Your task to perform on an android device: open app "Fetch Rewards" (install if not already installed) and enter user name: "Westwood@yahoo.com" and password: "qualifying" Image 0: 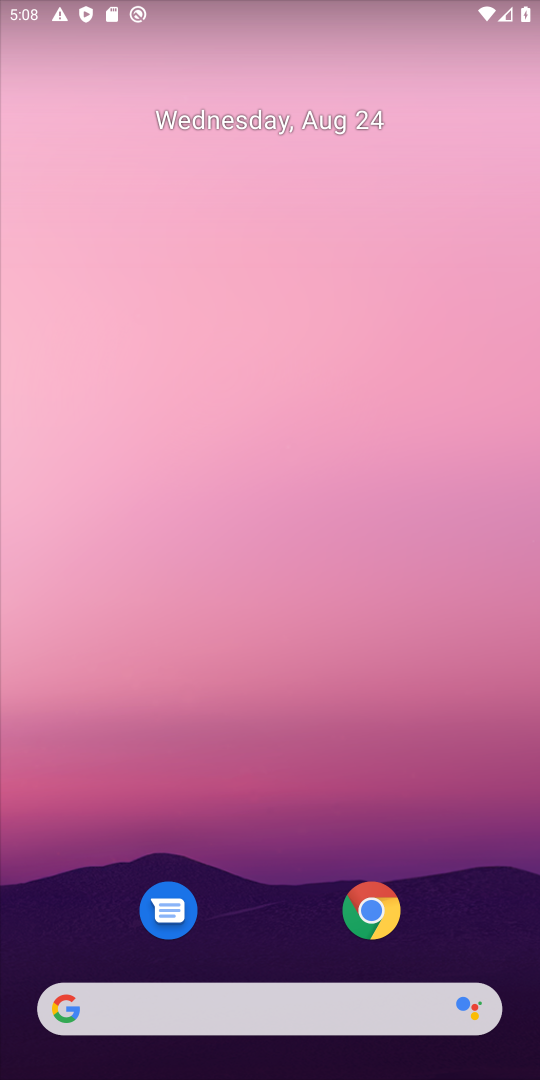
Step 0: drag from (201, 698) to (191, 160)
Your task to perform on an android device: open app "Fetch Rewards" (install if not already installed) and enter user name: "Westwood@yahoo.com" and password: "qualifying" Image 1: 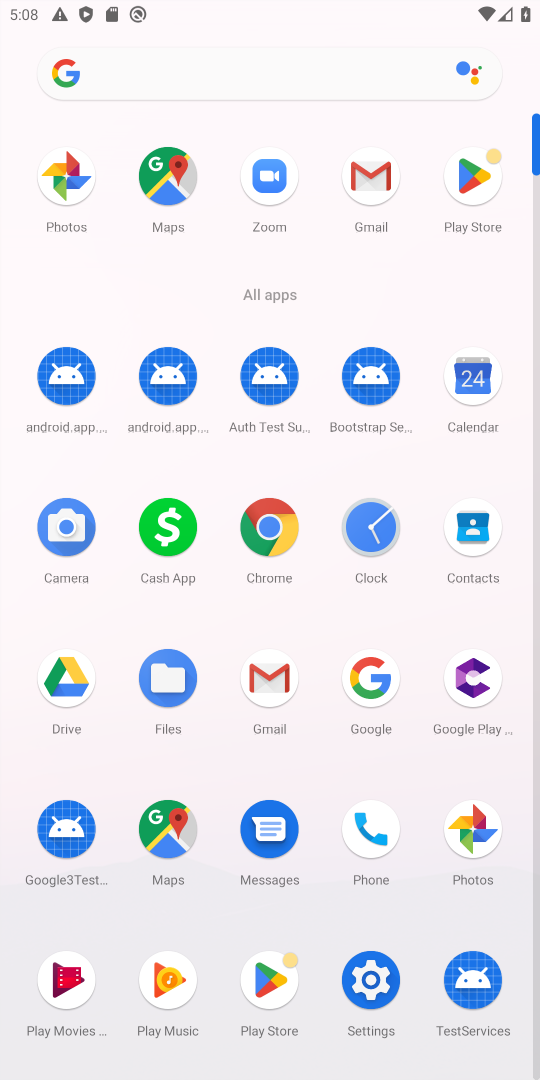
Step 1: click (450, 180)
Your task to perform on an android device: open app "Fetch Rewards" (install if not already installed) and enter user name: "Westwood@yahoo.com" and password: "qualifying" Image 2: 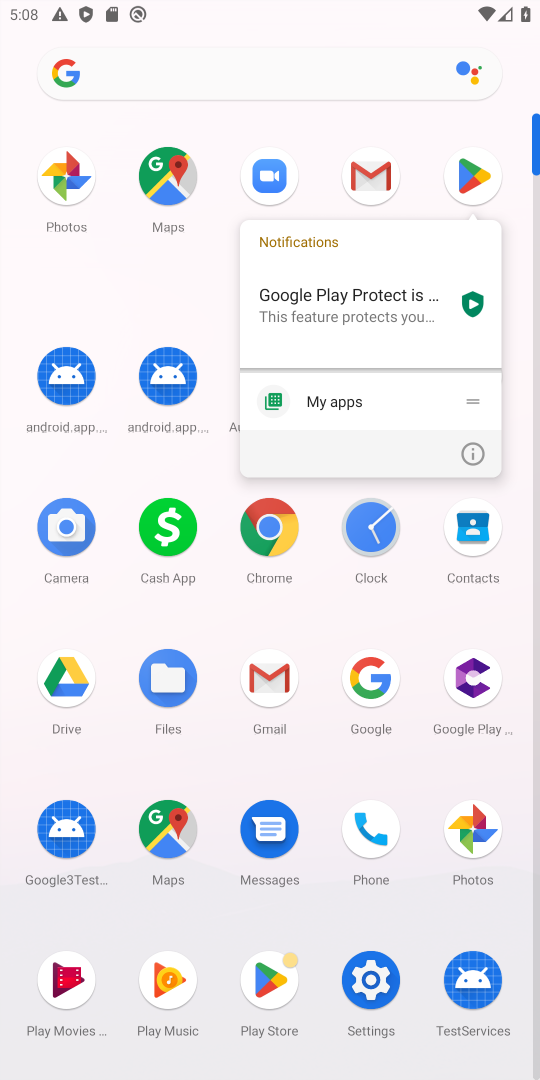
Step 2: click (480, 188)
Your task to perform on an android device: open app "Fetch Rewards" (install if not already installed) and enter user name: "Westwood@yahoo.com" and password: "qualifying" Image 3: 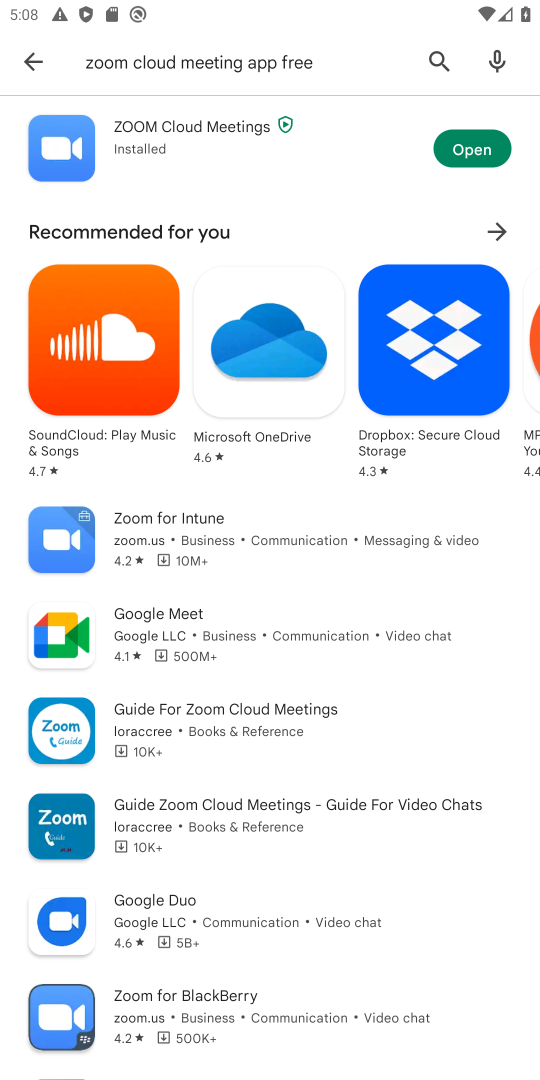
Step 3: click (434, 72)
Your task to perform on an android device: open app "Fetch Rewards" (install if not already installed) and enter user name: "Westwood@yahoo.com" and password: "qualifying" Image 4: 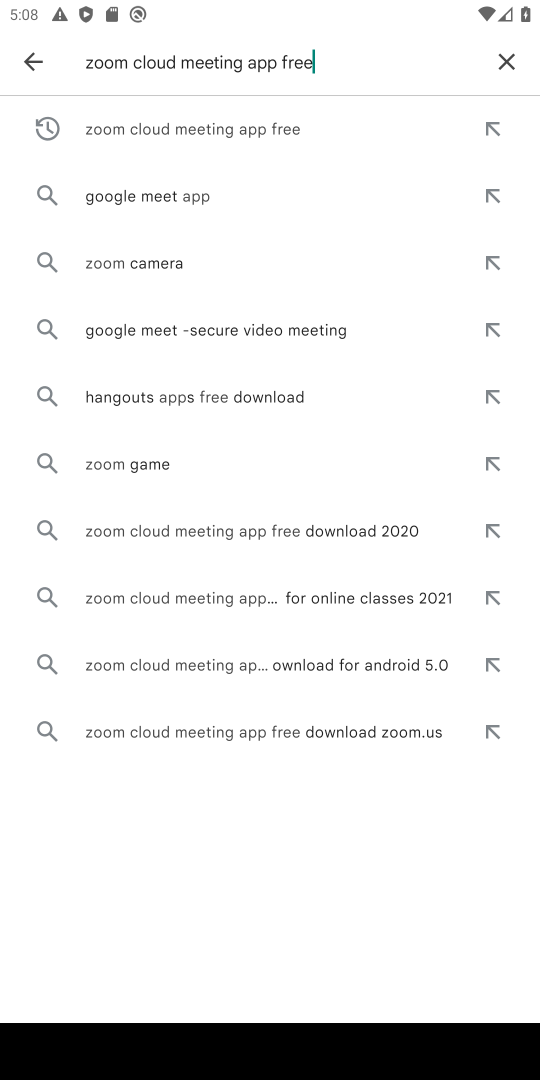
Step 4: click (492, 64)
Your task to perform on an android device: open app "Fetch Rewards" (install if not already installed) and enter user name: "Westwood@yahoo.com" and password: "qualifying" Image 5: 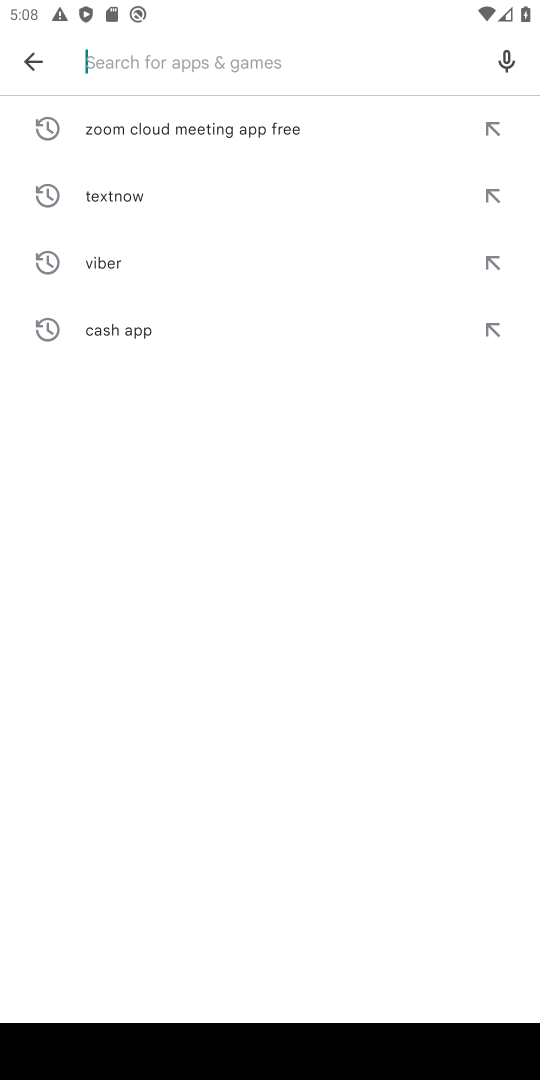
Step 5: type "fetch rewards"
Your task to perform on an android device: open app "Fetch Rewards" (install if not already installed) and enter user name: "Westwood@yahoo.com" and password: "qualifying" Image 6: 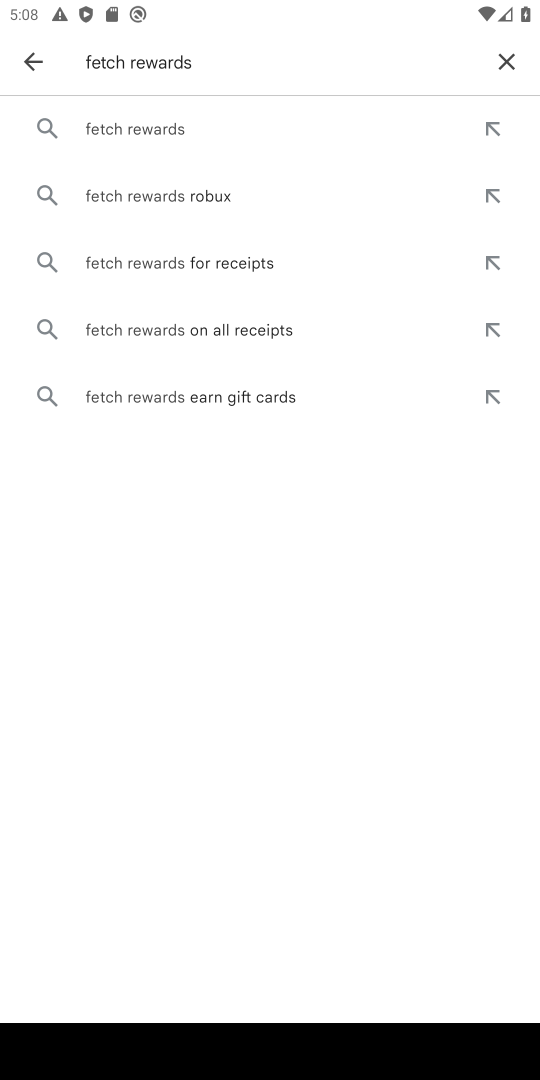
Step 6: click (117, 130)
Your task to perform on an android device: open app "Fetch Rewards" (install if not already installed) and enter user name: "Westwood@yahoo.com" and password: "qualifying" Image 7: 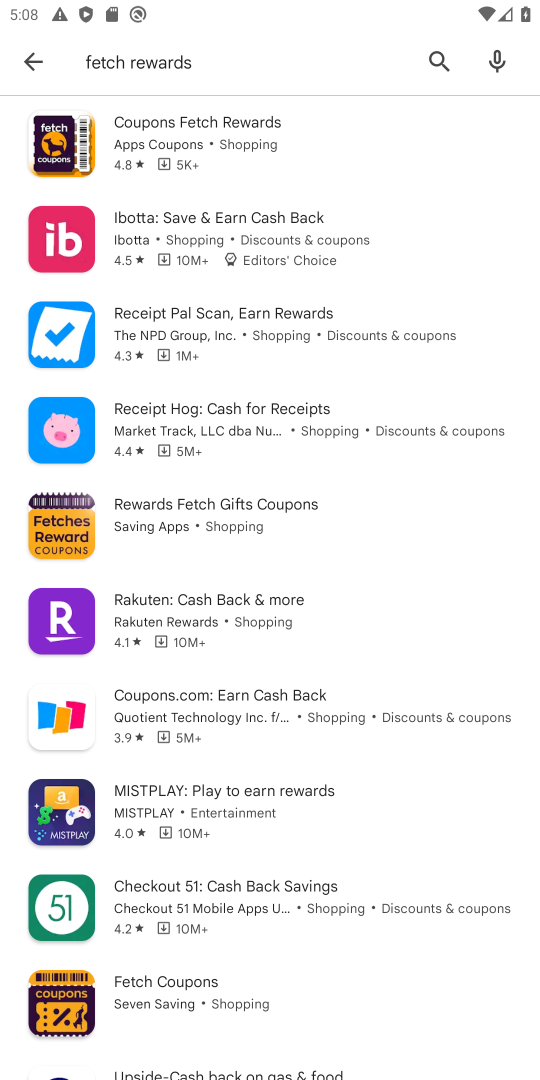
Step 7: task complete